Your task to perform on an android device: Open Reddit.com Image 0: 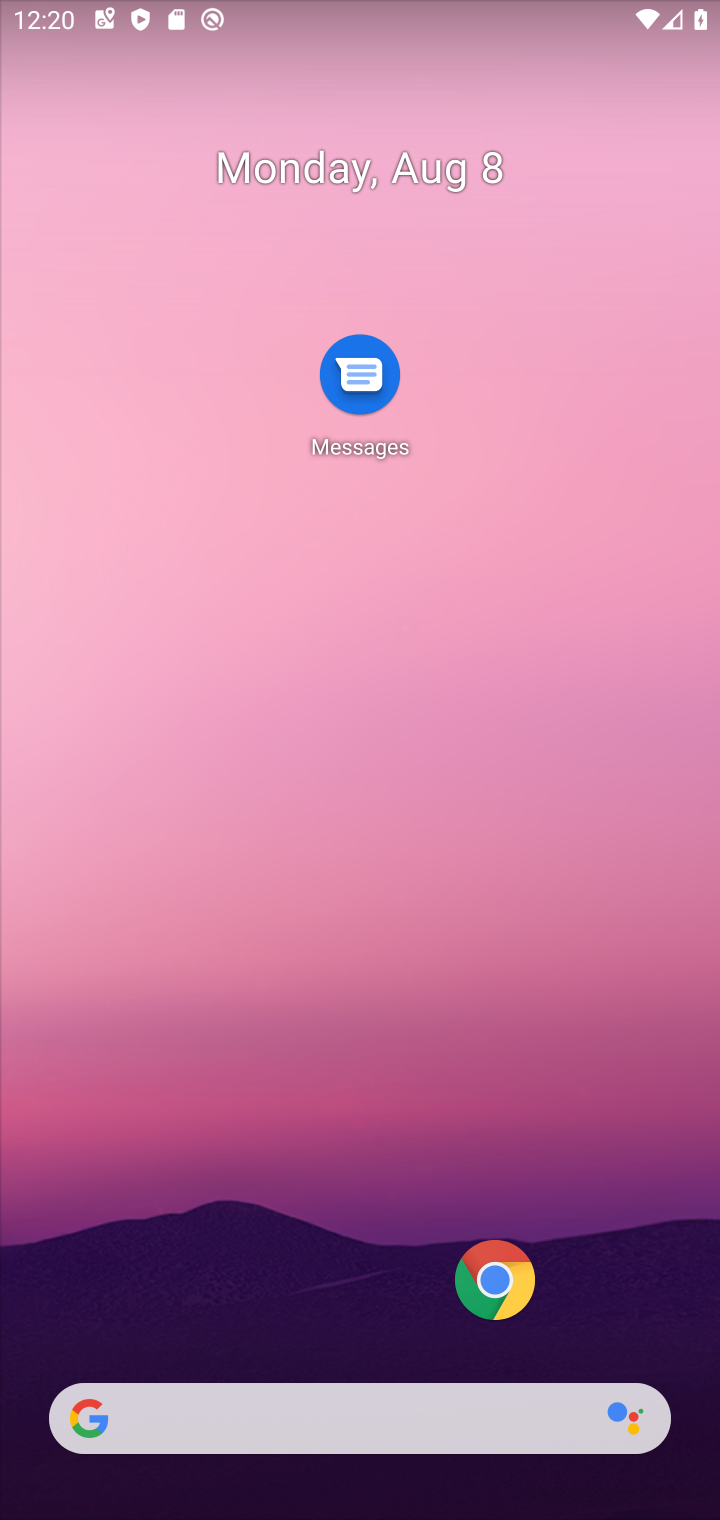
Step 0: click (518, 1273)
Your task to perform on an android device: Open Reddit.com Image 1: 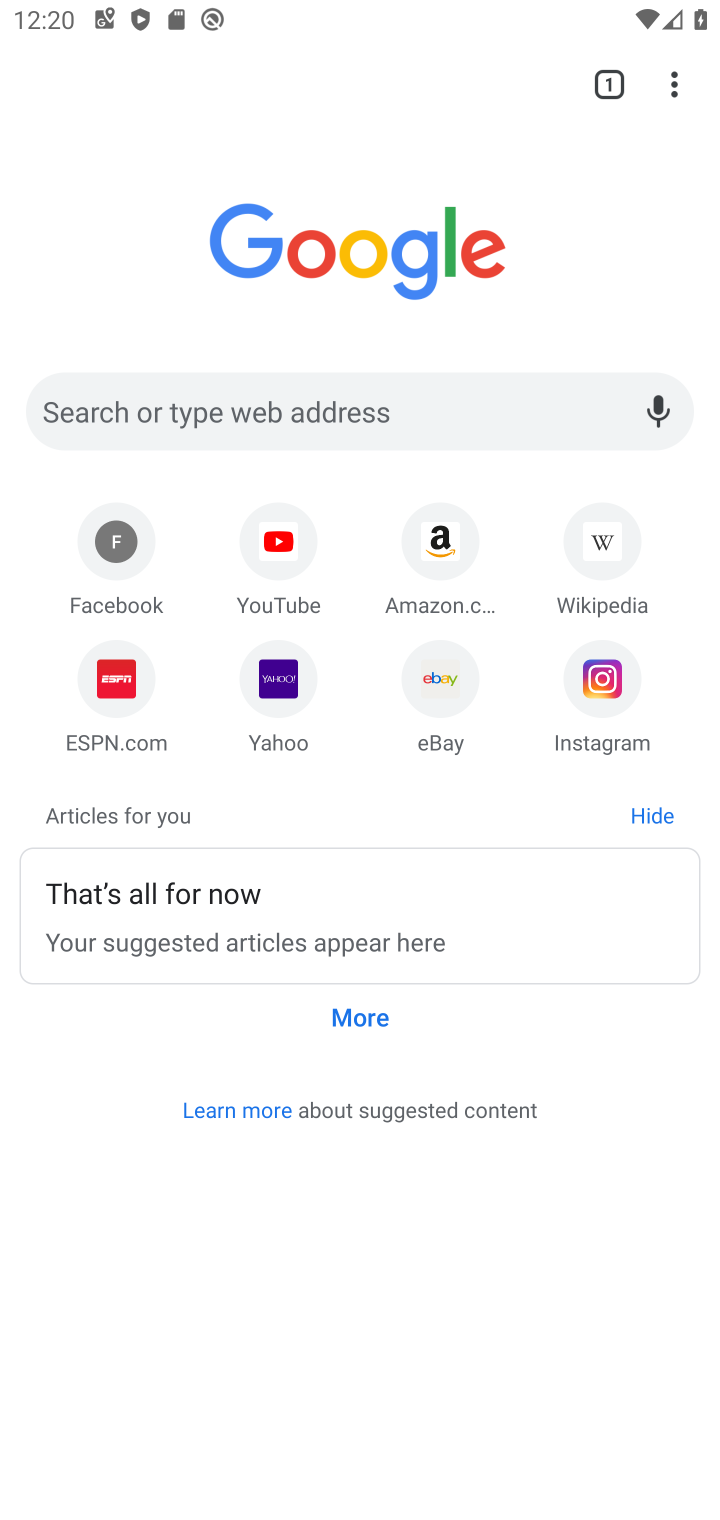
Step 1: click (99, 396)
Your task to perform on an android device: Open Reddit.com Image 2: 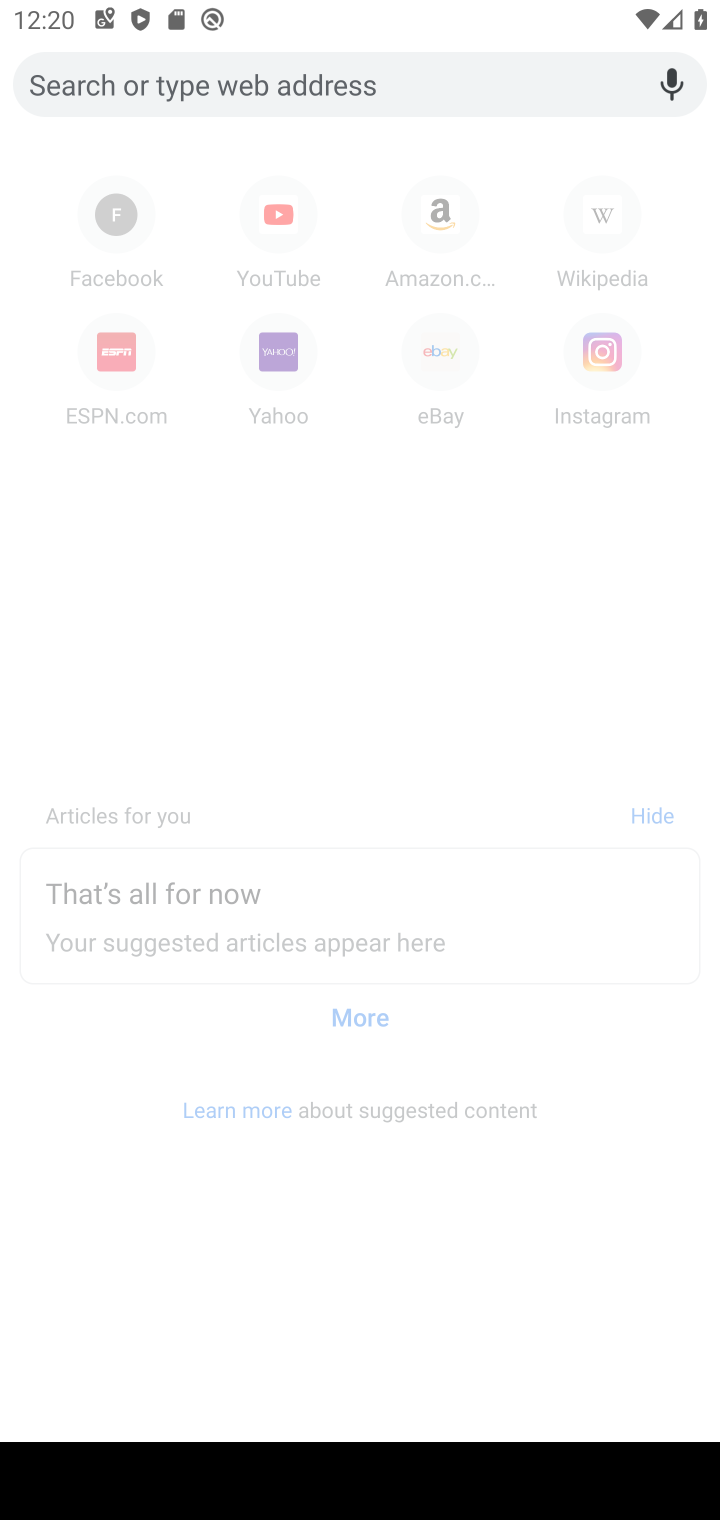
Step 2: type "reddit"
Your task to perform on an android device: Open Reddit.com Image 3: 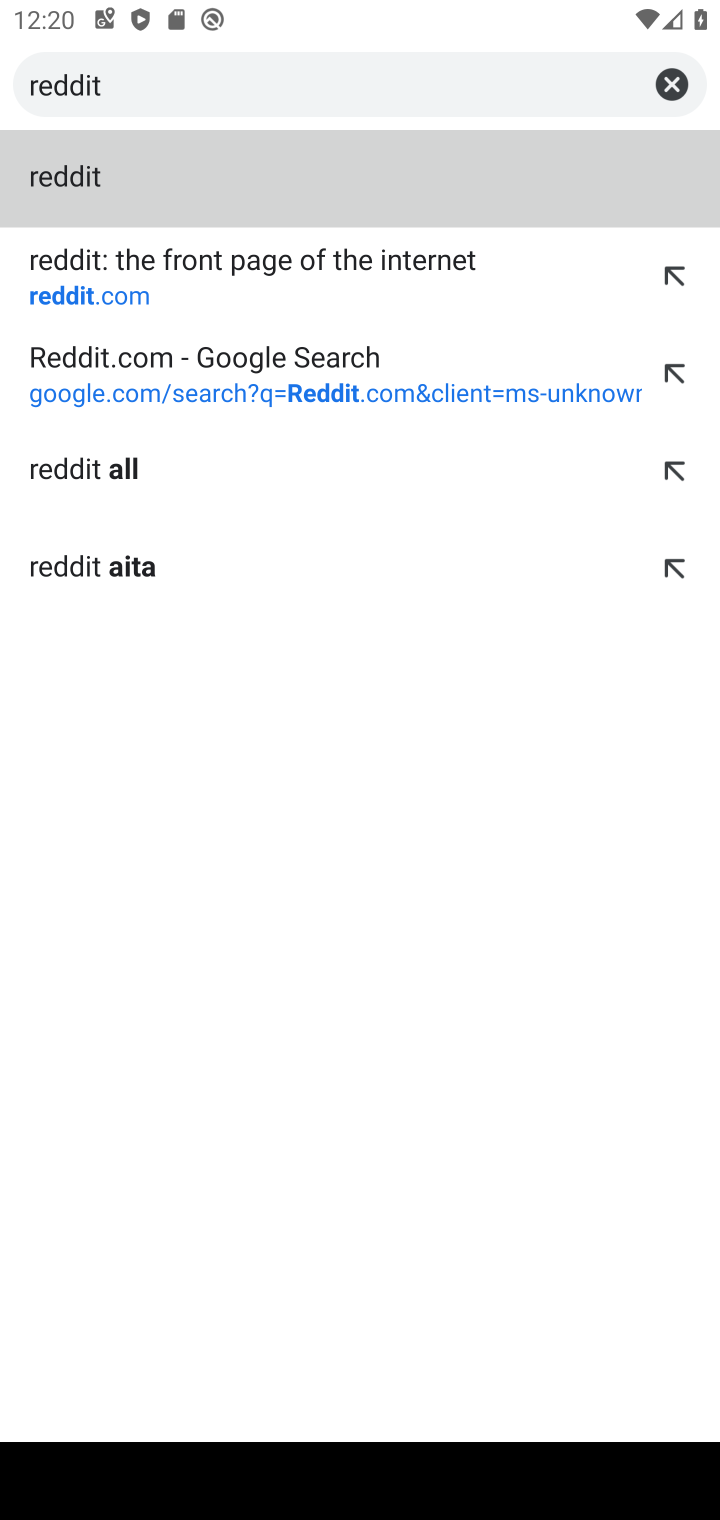
Step 3: click (178, 290)
Your task to perform on an android device: Open Reddit.com Image 4: 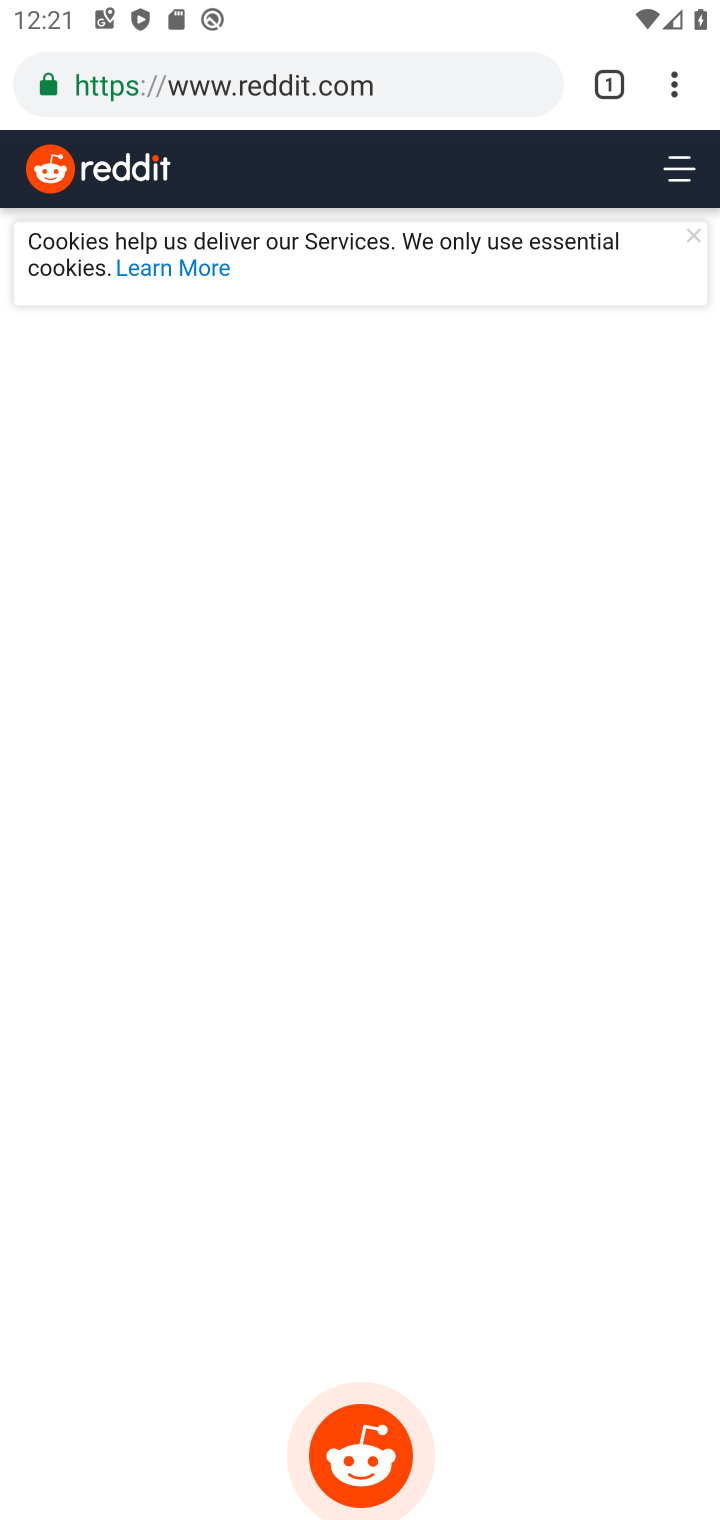
Step 4: task complete